Your task to perform on an android device: find photos in the google photos app Image 0: 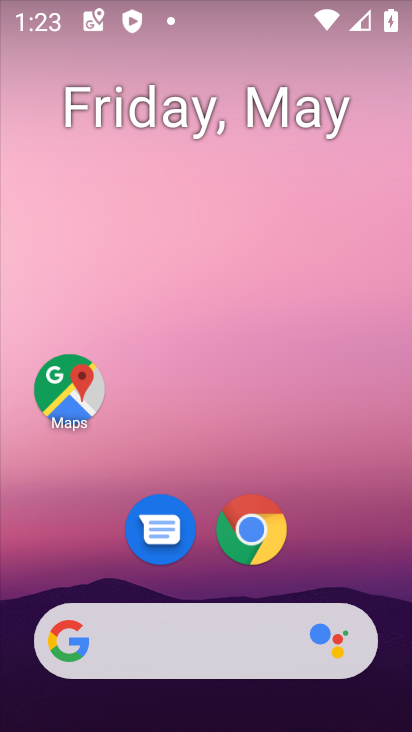
Step 0: press home button
Your task to perform on an android device: find photos in the google photos app Image 1: 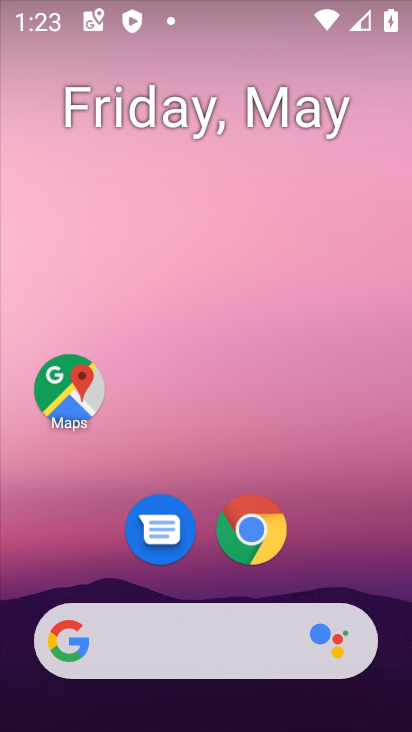
Step 1: drag from (377, 566) to (235, 35)
Your task to perform on an android device: find photos in the google photos app Image 2: 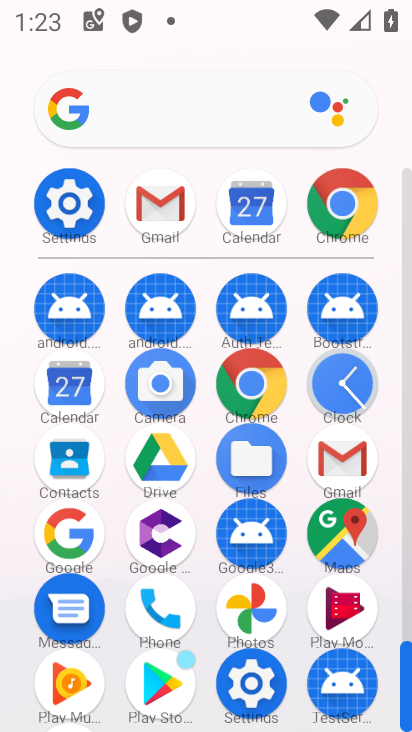
Step 2: click (249, 630)
Your task to perform on an android device: find photos in the google photos app Image 3: 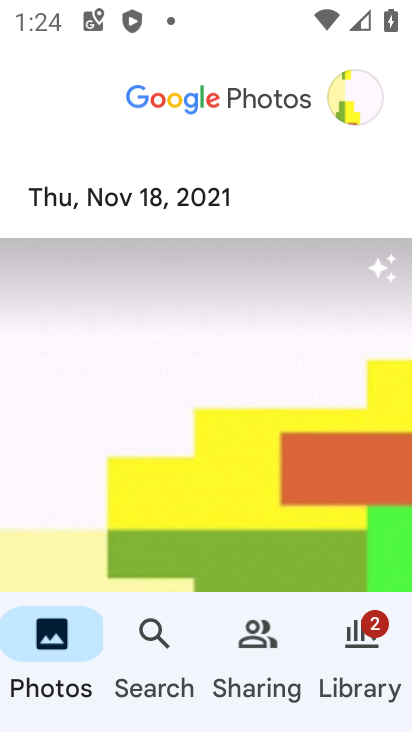
Step 3: task complete